Your task to perform on an android device: Go to display settings Image 0: 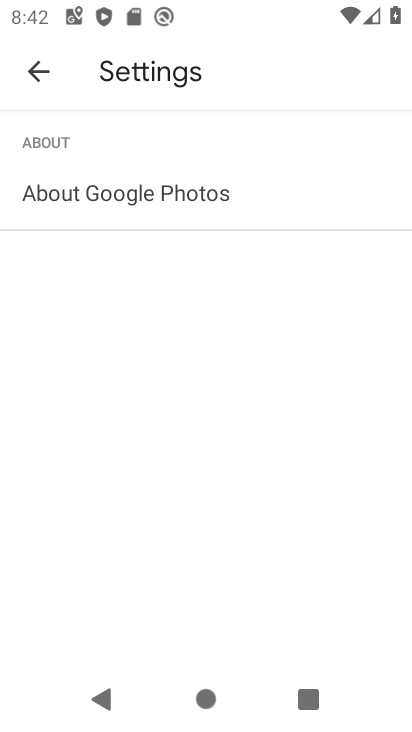
Step 0: press home button
Your task to perform on an android device: Go to display settings Image 1: 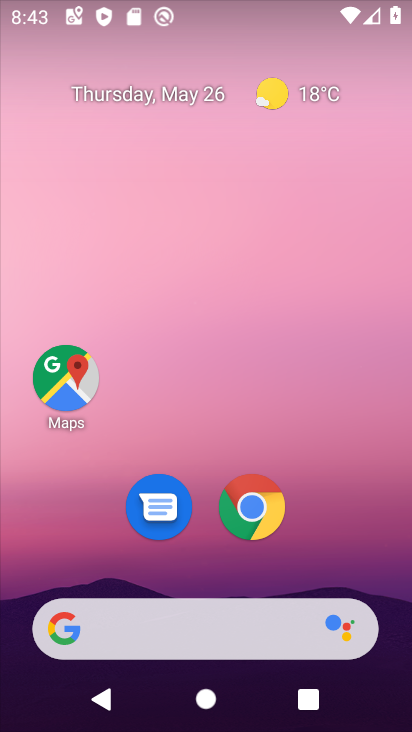
Step 1: drag from (231, 668) to (282, 190)
Your task to perform on an android device: Go to display settings Image 2: 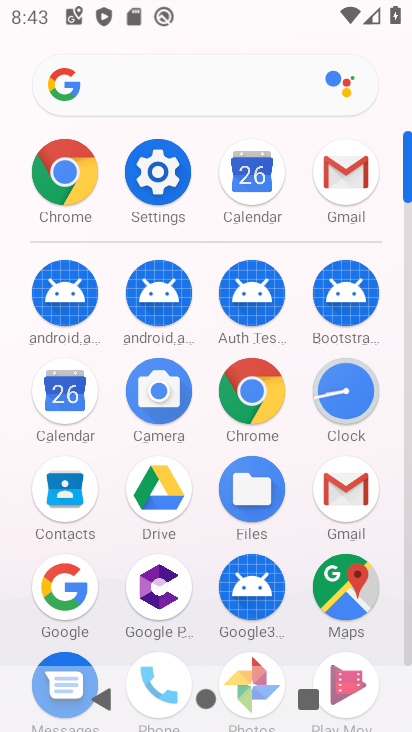
Step 2: click (170, 169)
Your task to perform on an android device: Go to display settings Image 3: 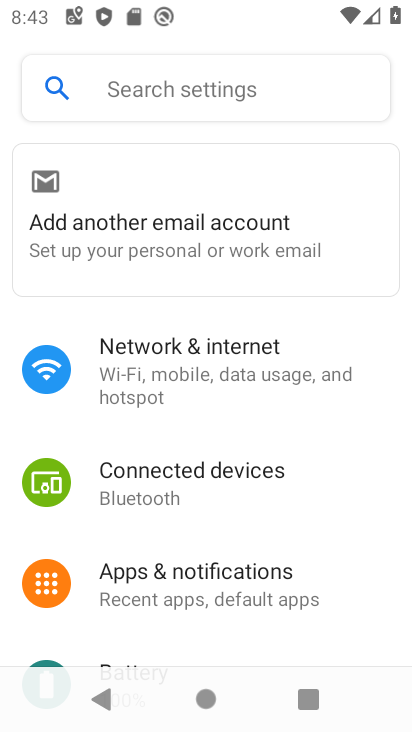
Step 3: drag from (217, 542) to (228, 305)
Your task to perform on an android device: Go to display settings Image 4: 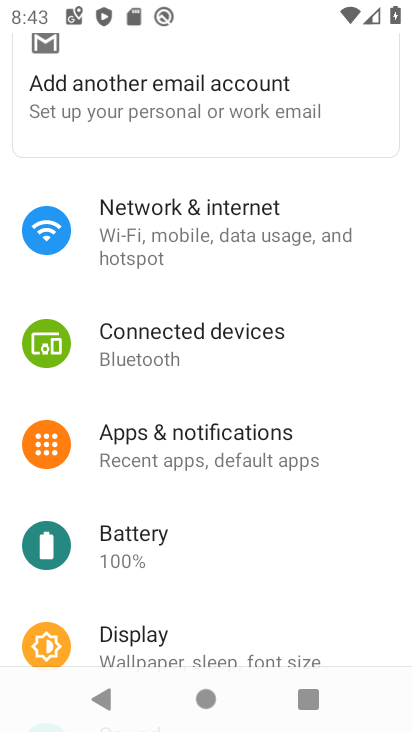
Step 4: click (160, 631)
Your task to perform on an android device: Go to display settings Image 5: 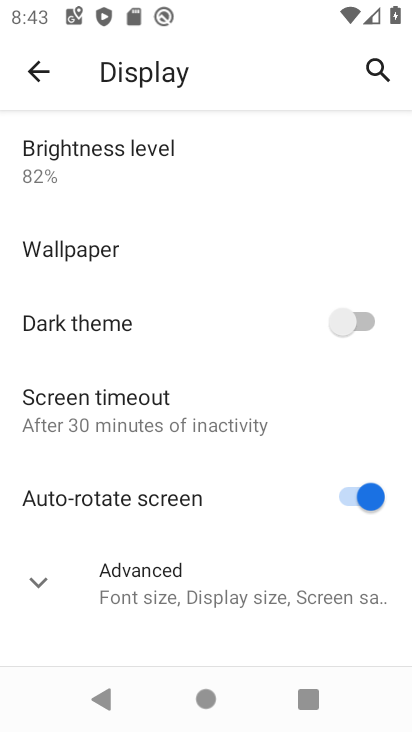
Step 5: task complete